Your task to perform on an android device: check the backup settings in the google photos Image 0: 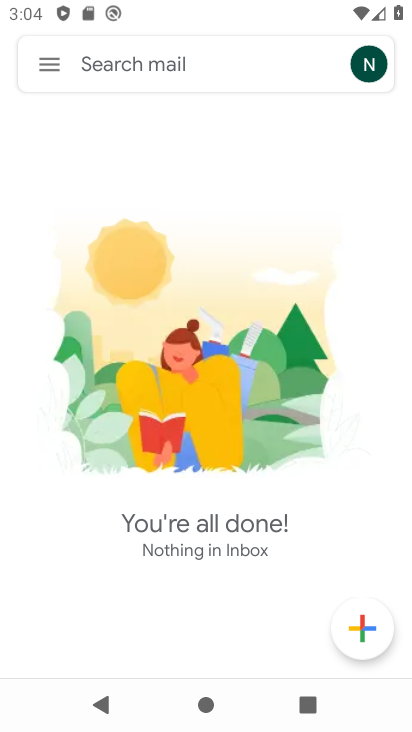
Step 0: press home button
Your task to perform on an android device: check the backup settings in the google photos Image 1: 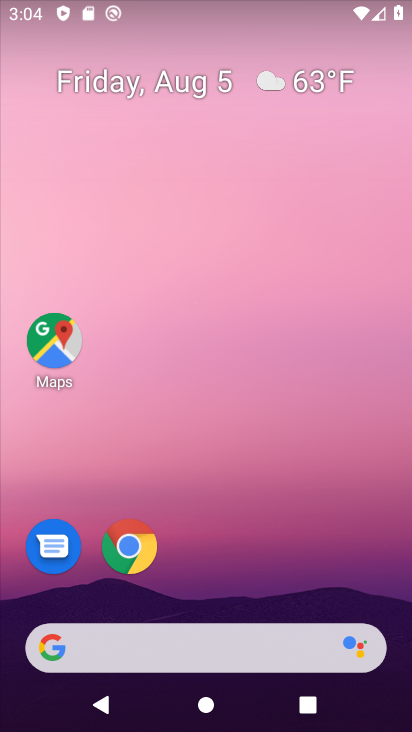
Step 1: drag from (267, 554) to (294, 164)
Your task to perform on an android device: check the backup settings in the google photos Image 2: 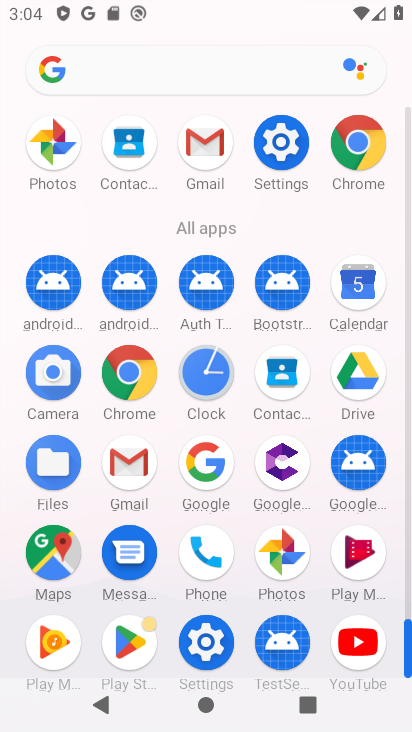
Step 2: click (286, 547)
Your task to perform on an android device: check the backup settings in the google photos Image 3: 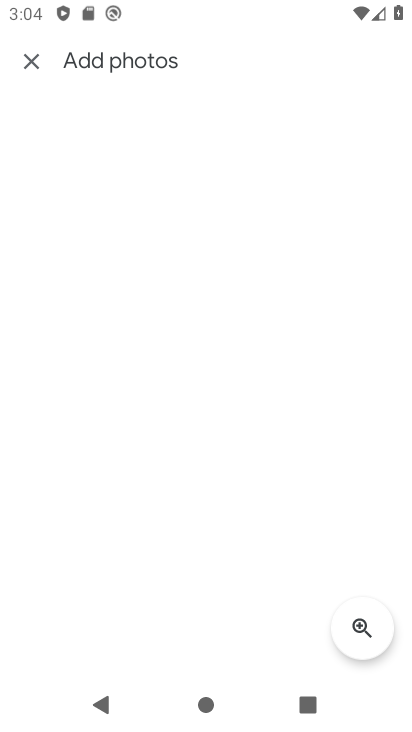
Step 3: press back button
Your task to perform on an android device: check the backup settings in the google photos Image 4: 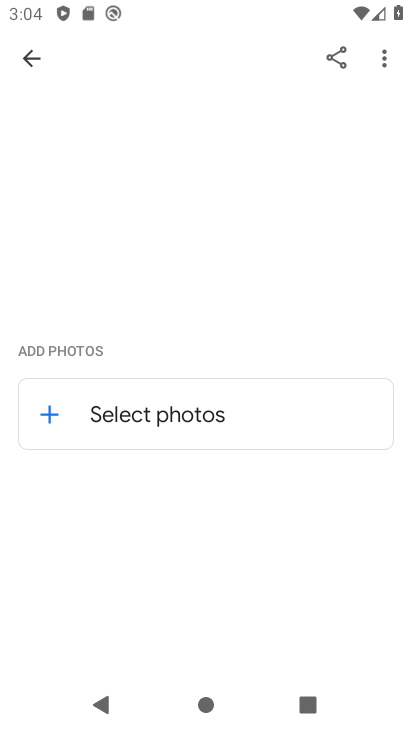
Step 4: press back button
Your task to perform on an android device: check the backup settings in the google photos Image 5: 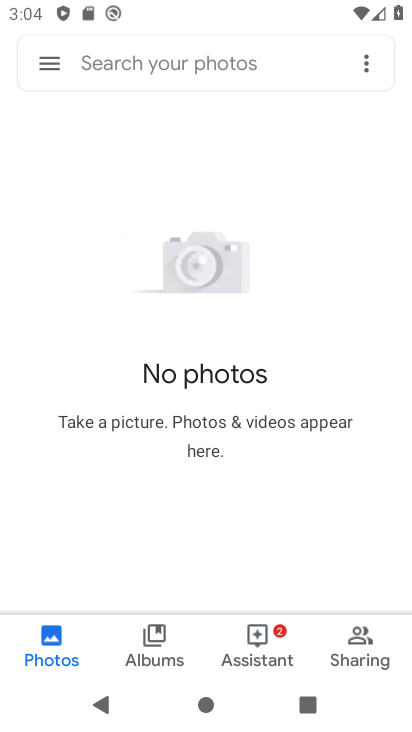
Step 5: click (49, 64)
Your task to perform on an android device: check the backup settings in the google photos Image 6: 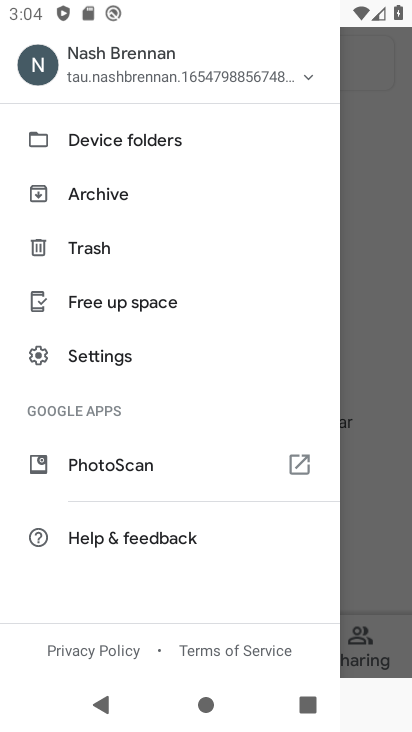
Step 6: click (125, 363)
Your task to perform on an android device: check the backup settings in the google photos Image 7: 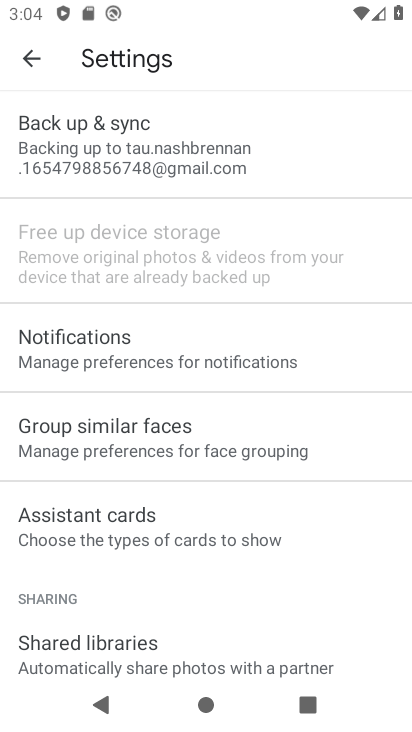
Step 7: click (163, 149)
Your task to perform on an android device: check the backup settings in the google photos Image 8: 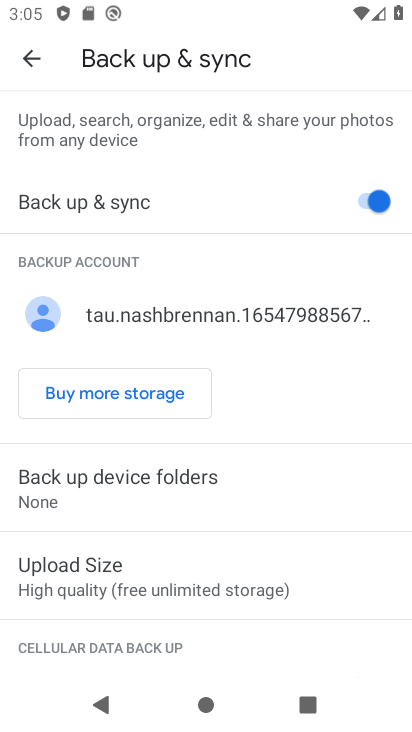
Step 8: task complete